Your task to perform on an android device: open a new tab in the chrome app Image 0: 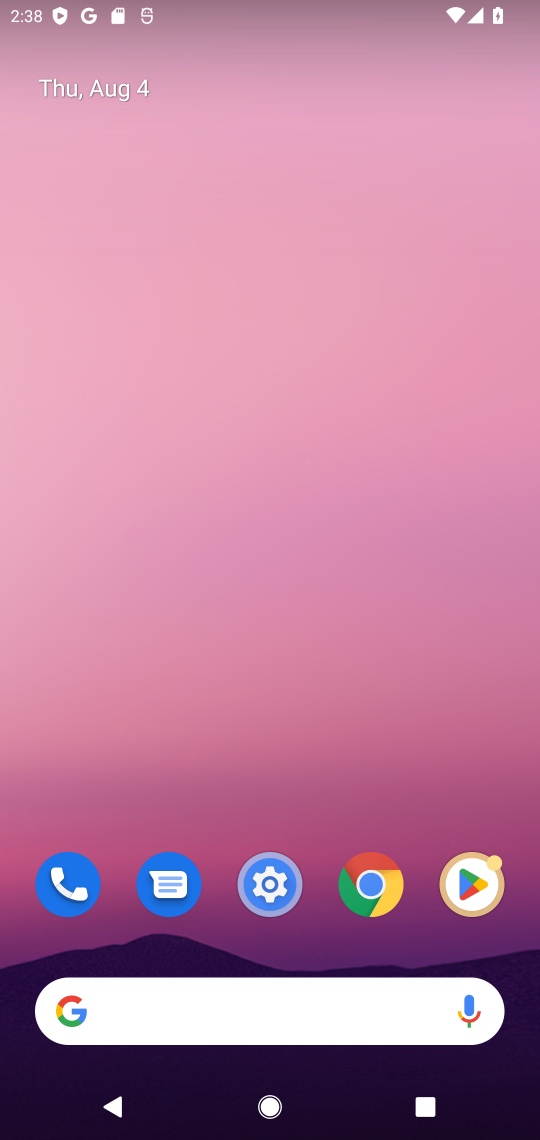
Step 0: drag from (232, 931) to (329, 173)
Your task to perform on an android device: open a new tab in the chrome app Image 1: 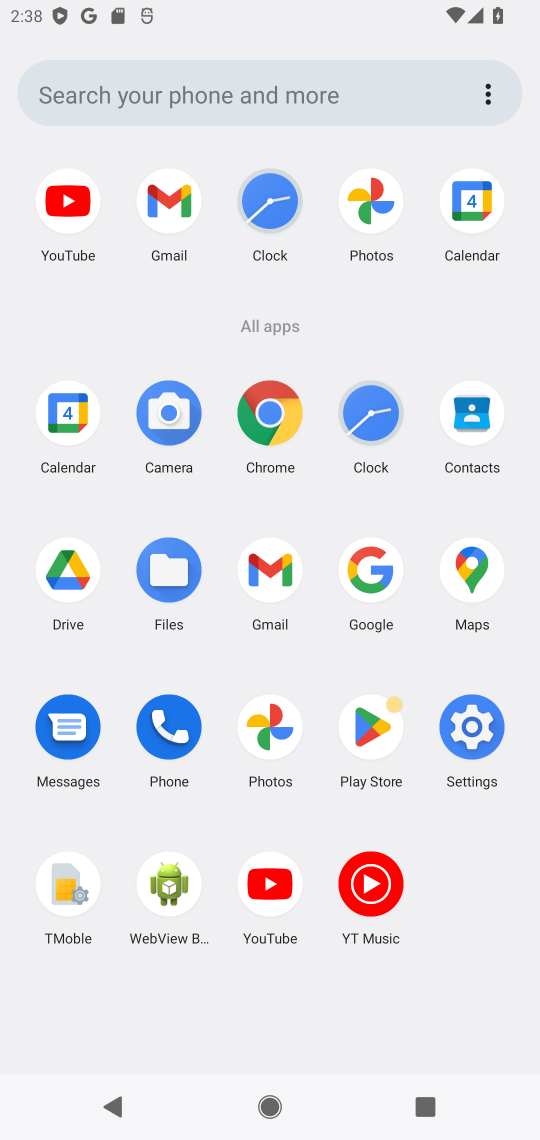
Step 1: click (266, 401)
Your task to perform on an android device: open a new tab in the chrome app Image 2: 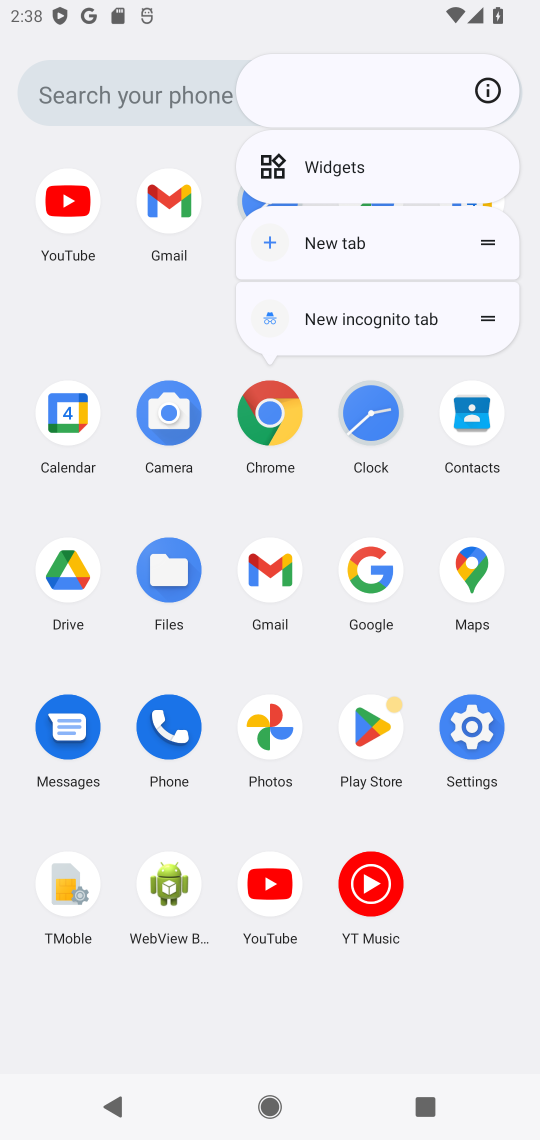
Step 2: click (476, 87)
Your task to perform on an android device: open a new tab in the chrome app Image 3: 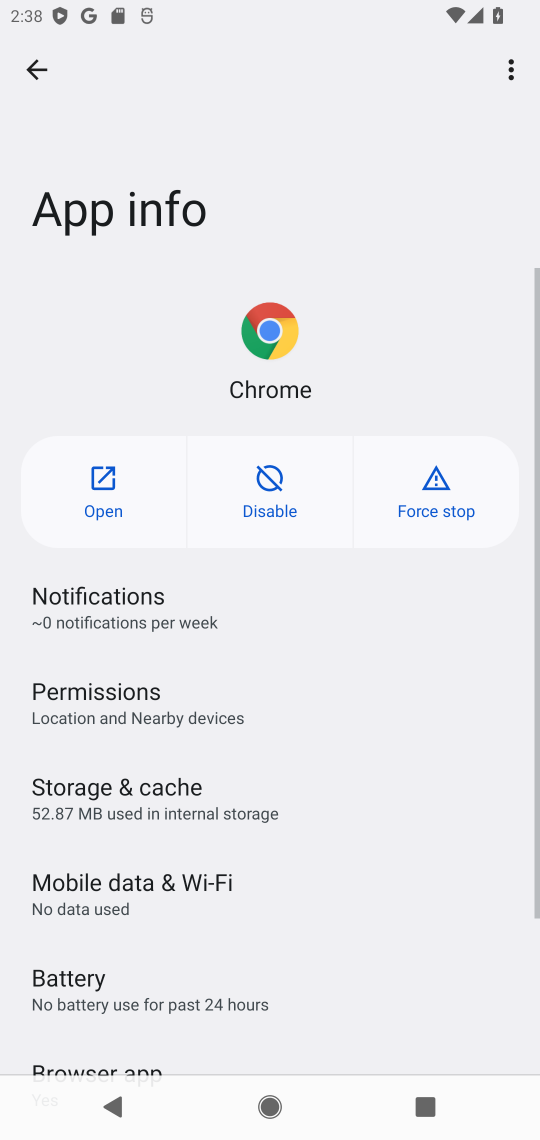
Step 3: click (114, 462)
Your task to perform on an android device: open a new tab in the chrome app Image 4: 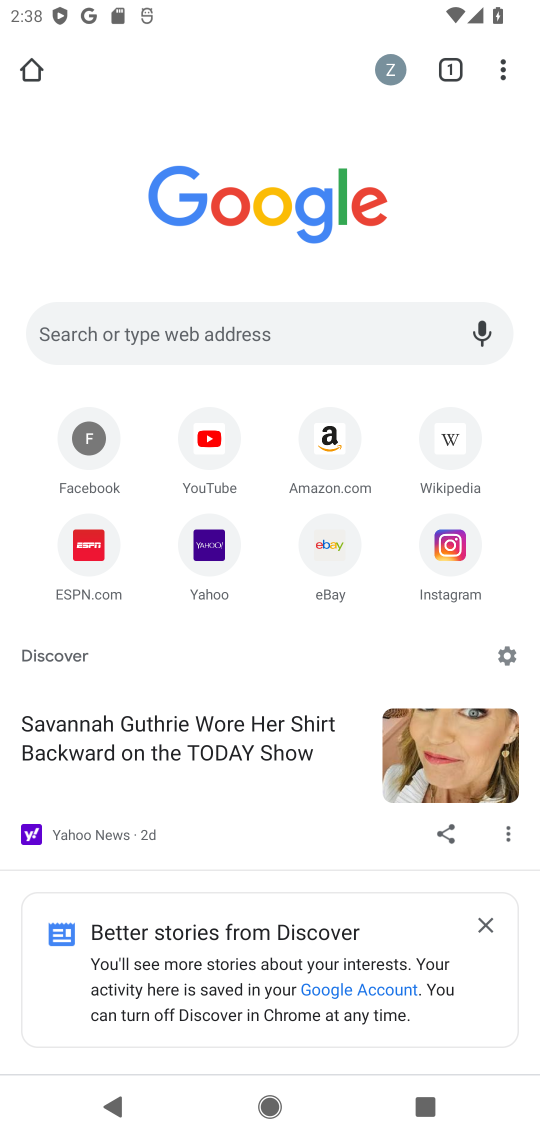
Step 4: task complete